Your task to perform on an android device: Go to eBay Image 0: 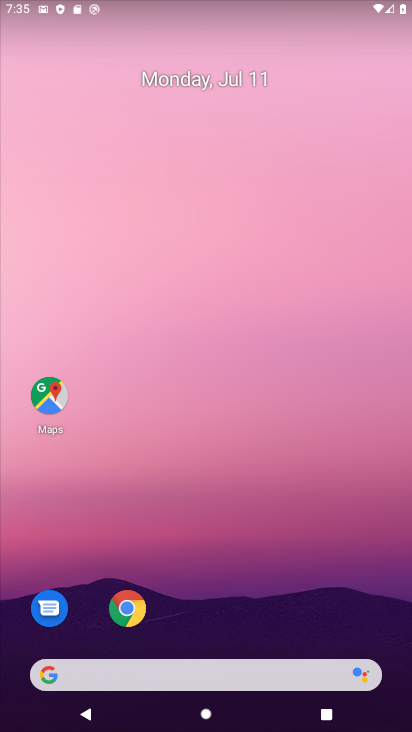
Step 0: drag from (271, 628) to (199, 124)
Your task to perform on an android device: Go to eBay Image 1: 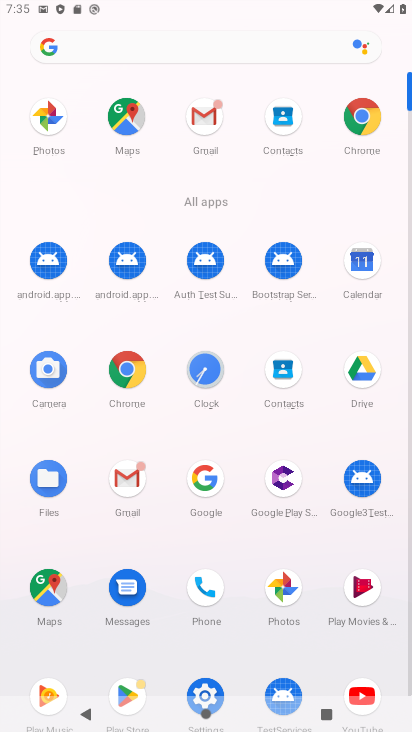
Step 1: click (140, 369)
Your task to perform on an android device: Go to eBay Image 2: 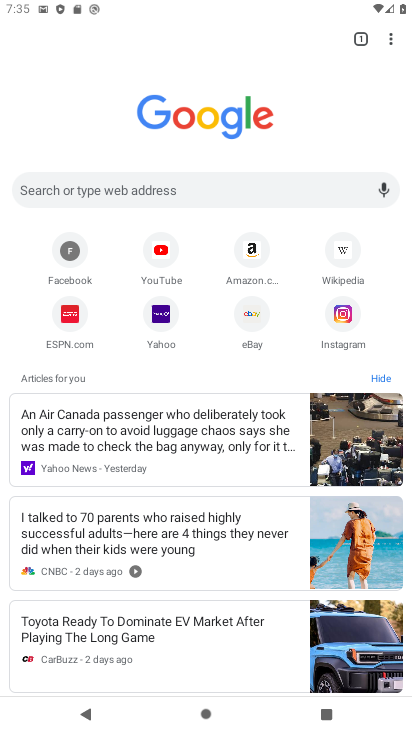
Step 2: click (247, 317)
Your task to perform on an android device: Go to eBay Image 3: 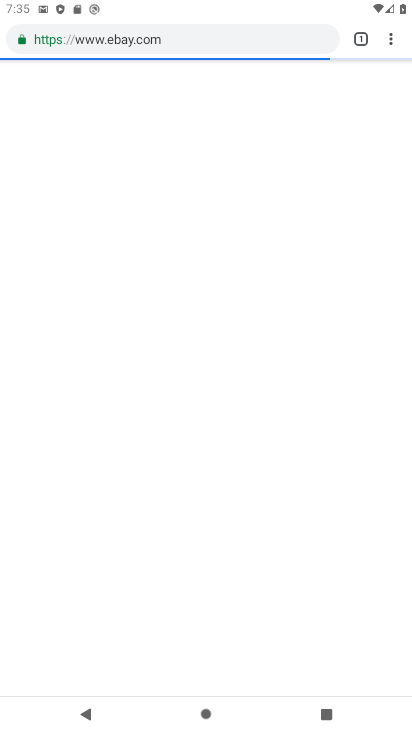
Step 3: task complete